Your task to perform on an android device: Open battery settings Image 0: 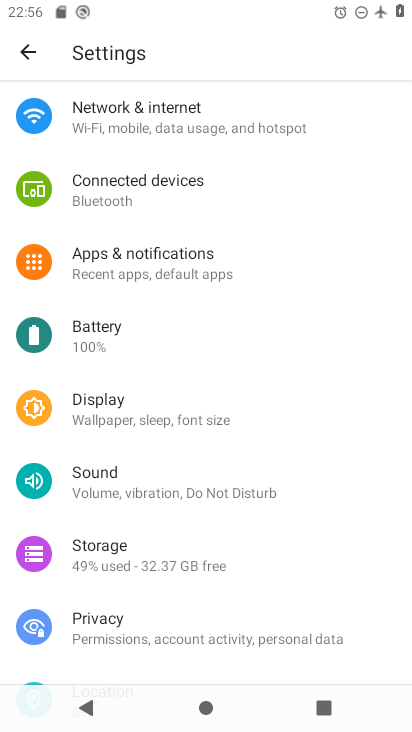
Step 0: click (118, 332)
Your task to perform on an android device: Open battery settings Image 1: 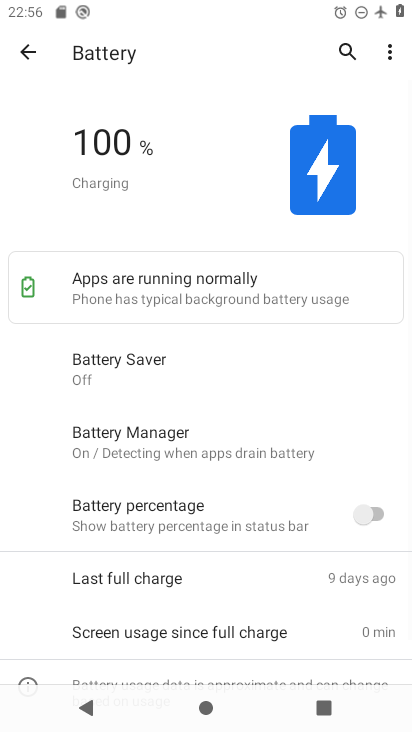
Step 1: task complete